Your task to perform on an android device: Open calendar and show me the fourth week of next month Image 0: 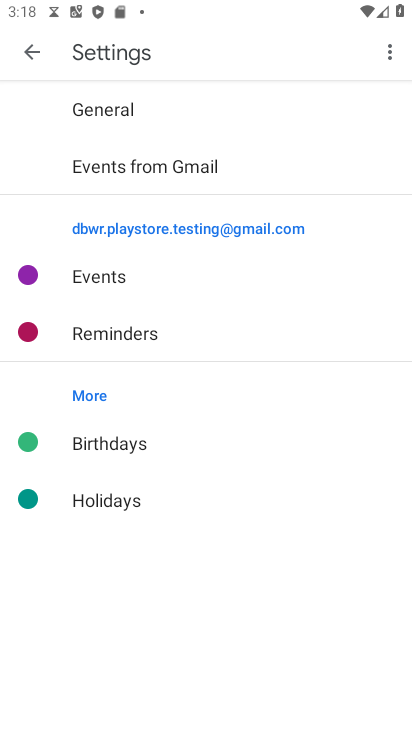
Step 0: press home button
Your task to perform on an android device: Open calendar and show me the fourth week of next month Image 1: 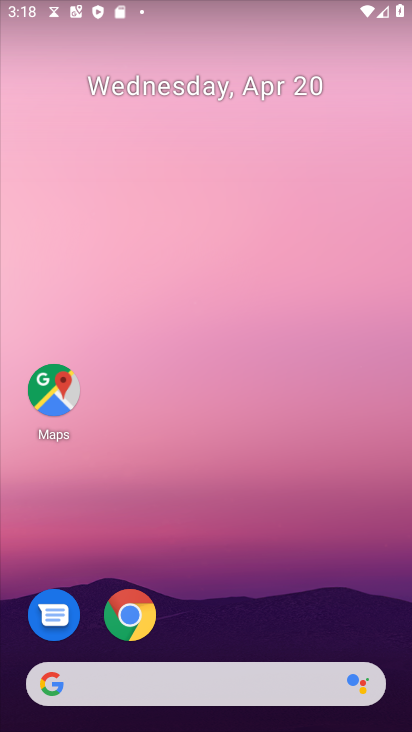
Step 1: drag from (195, 624) to (272, 125)
Your task to perform on an android device: Open calendar and show me the fourth week of next month Image 2: 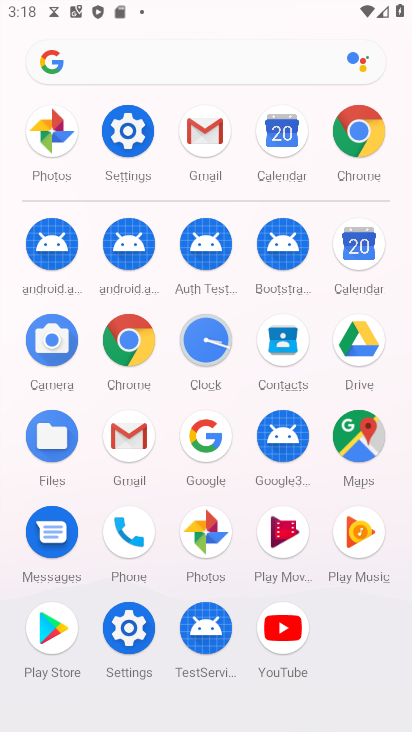
Step 2: click (350, 258)
Your task to perform on an android device: Open calendar and show me the fourth week of next month Image 3: 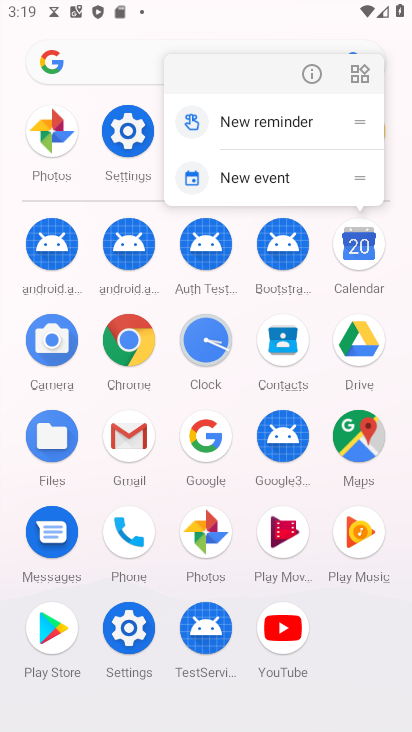
Step 3: click (308, 82)
Your task to perform on an android device: Open calendar and show me the fourth week of next month Image 4: 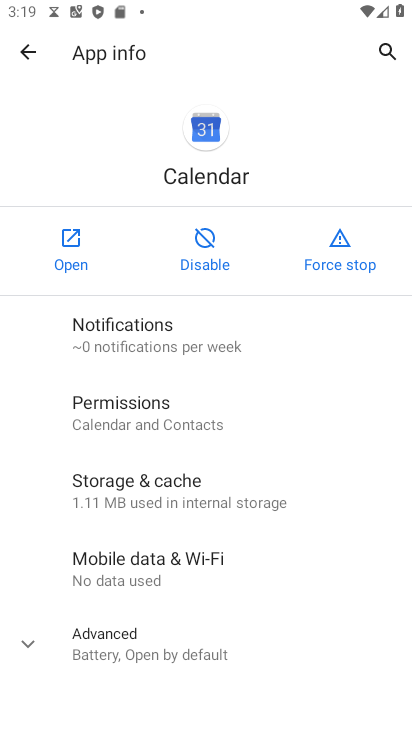
Step 4: click (70, 252)
Your task to perform on an android device: Open calendar and show me the fourth week of next month Image 5: 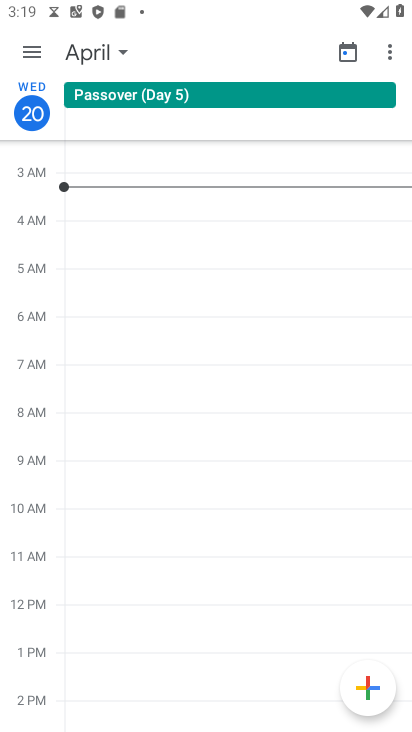
Step 5: drag from (263, 521) to (260, 200)
Your task to perform on an android device: Open calendar and show me the fourth week of next month Image 6: 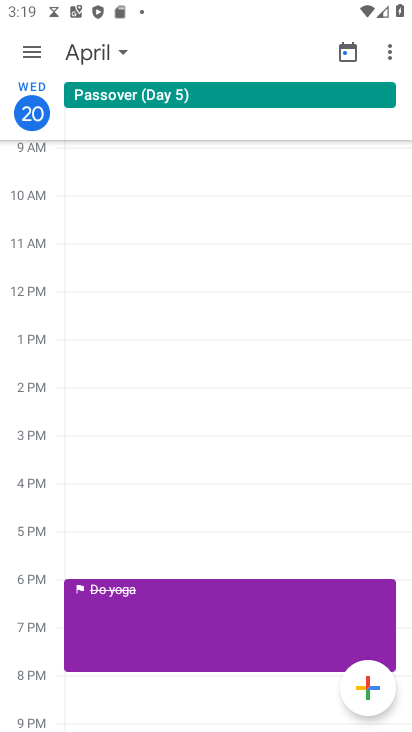
Step 6: drag from (257, 176) to (231, 602)
Your task to perform on an android device: Open calendar and show me the fourth week of next month Image 7: 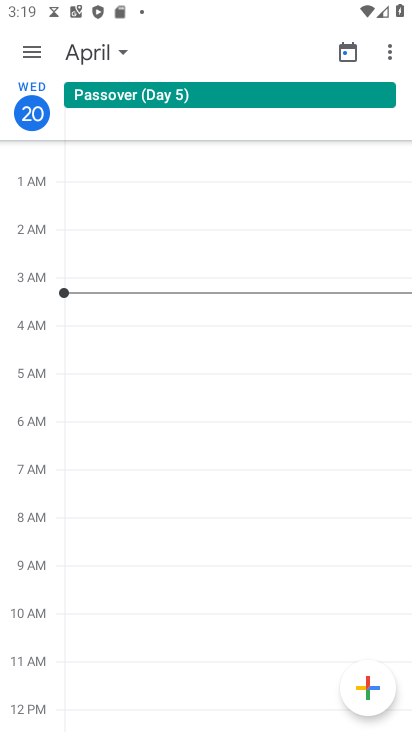
Step 7: click (126, 54)
Your task to perform on an android device: Open calendar and show me the fourth week of next month Image 8: 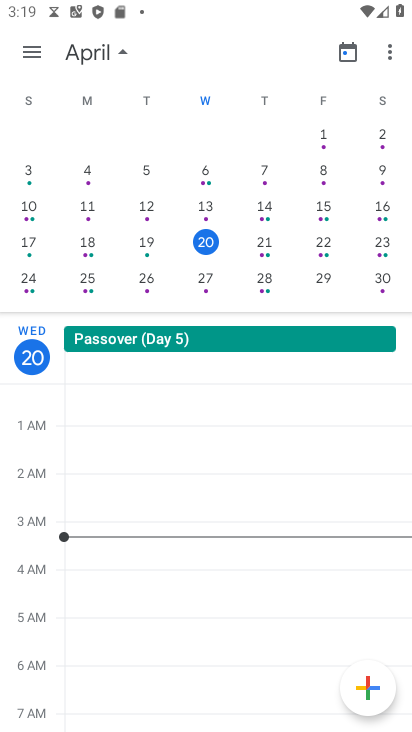
Step 8: drag from (351, 269) to (0, 271)
Your task to perform on an android device: Open calendar and show me the fourth week of next month Image 9: 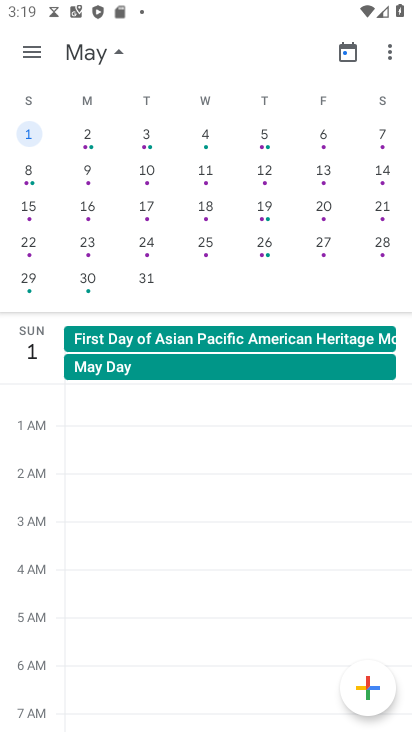
Step 9: click (207, 233)
Your task to perform on an android device: Open calendar and show me the fourth week of next month Image 10: 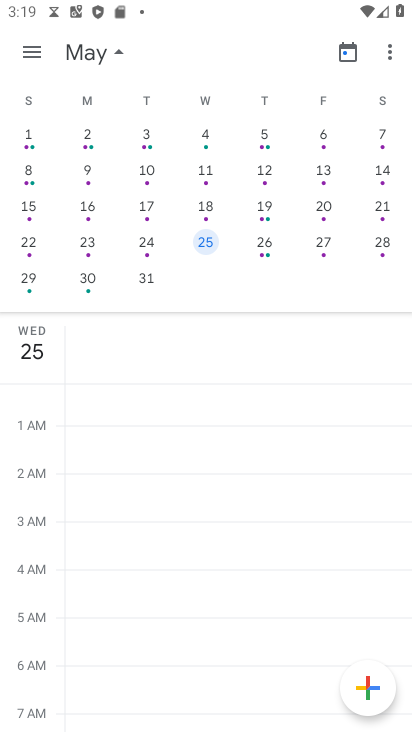
Step 10: click (153, 238)
Your task to perform on an android device: Open calendar and show me the fourth week of next month Image 11: 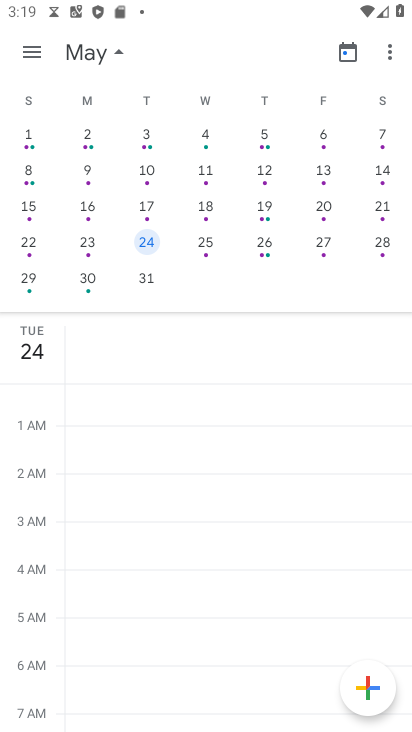
Step 11: task complete